Your task to perform on an android device: Open settings Image 0: 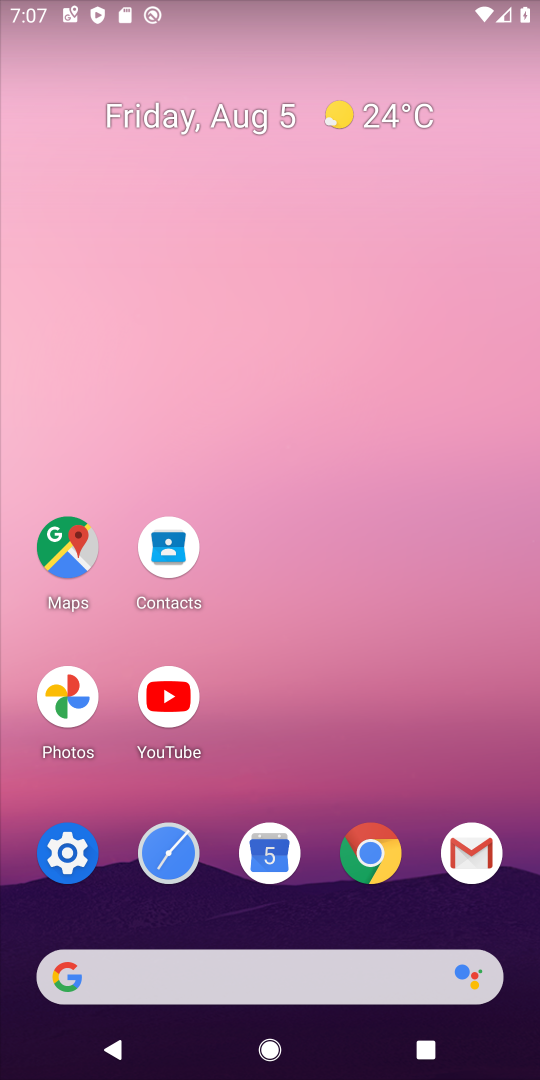
Step 0: click (70, 854)
Your task to perform on an android device: Open settings Image 1: 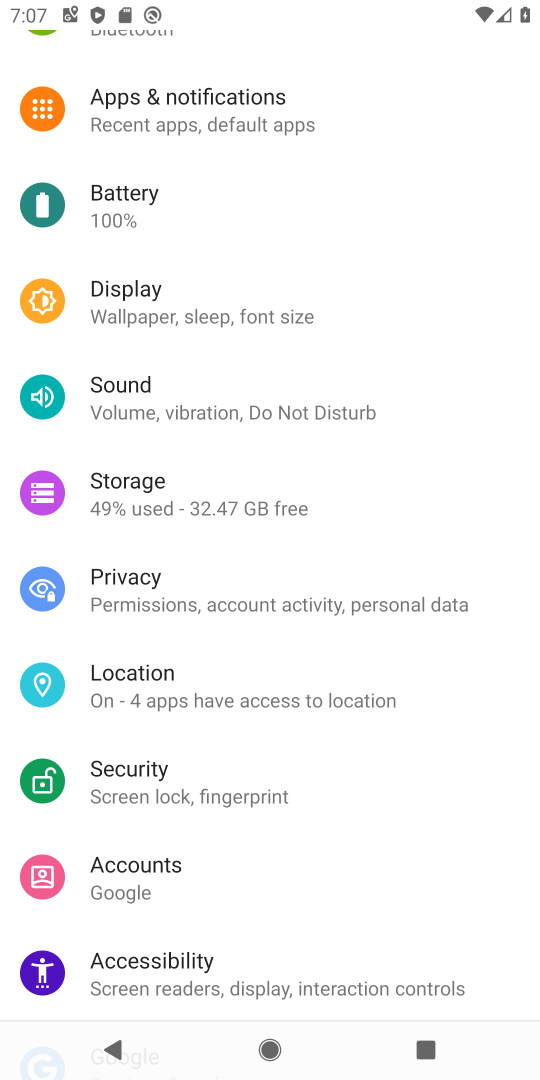
Step 1: task complete